Your task to perform on an android device: create a new album in the google photos Image 0: 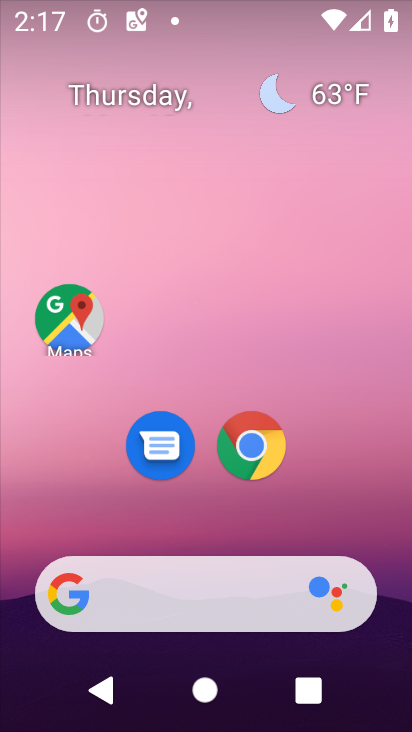
Step 0: drag from (245, 584) to (241, 40)
Your task to perform on an android device: create a new album in the google photos Image 1: 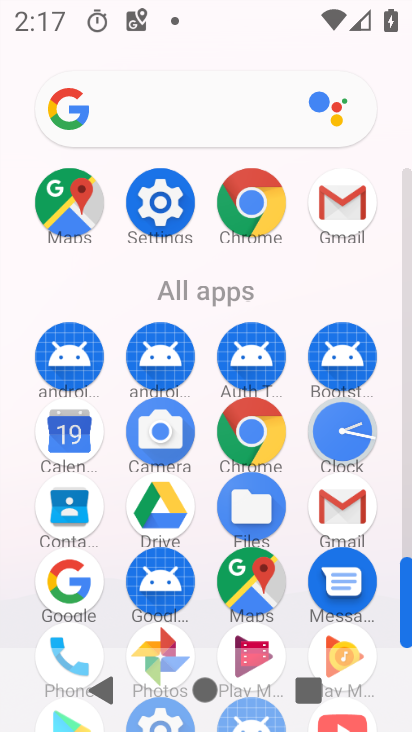
Step 1: click (165, 634)
Your task to perform on an android device: create a new album in the google photos Image 2: 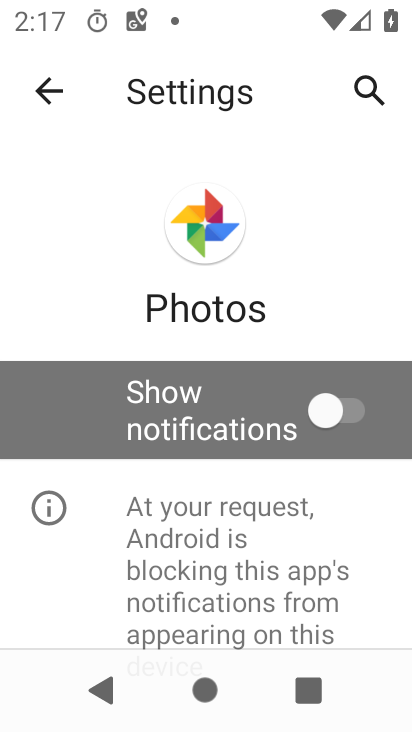
Step 2: click (50, 99)
Your task to perform on an android device: create a new album in the google photos Image 3: 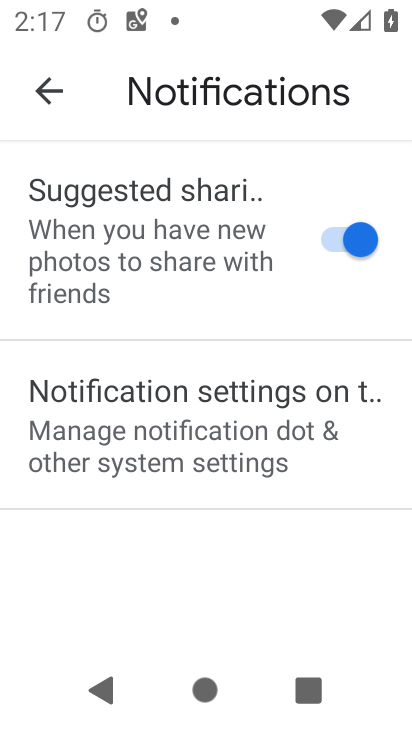
Step 3: click (50, 99)
Your task to perform on an android device: create a new album in the google photos Image 4: 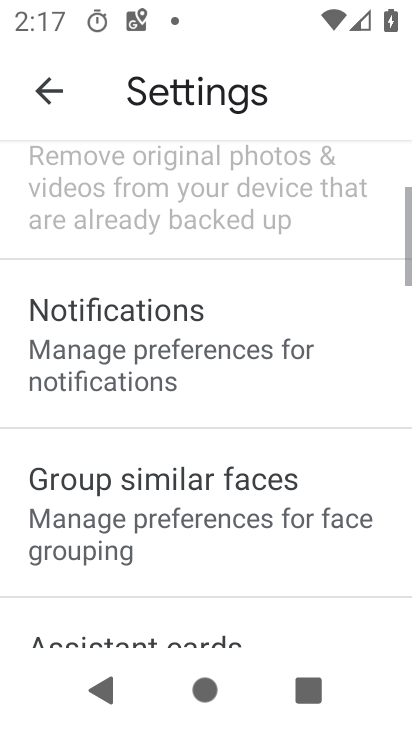
Step 4: click (50, 99)
Your task to perform on an android device: create a new album in the google photos Image 5: 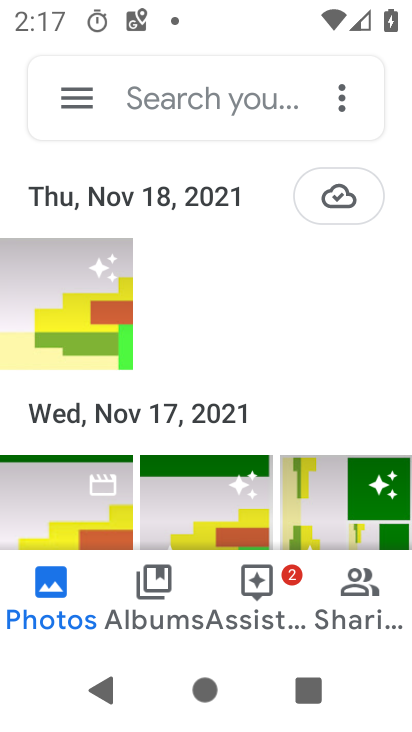
Step 5: click (166, 586)
Your task to perform on an android device: create a new album in the google photos Image 6: 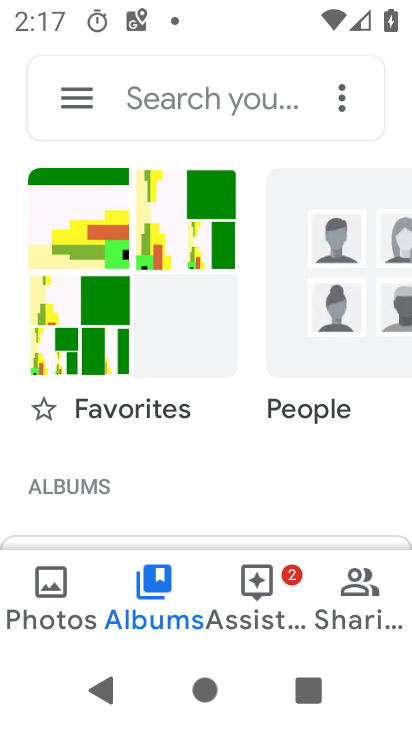
Step 6: drag from (190, 449) to (232, 102)
Your task to perform on an android device: create a new album in the google photos Image 7: 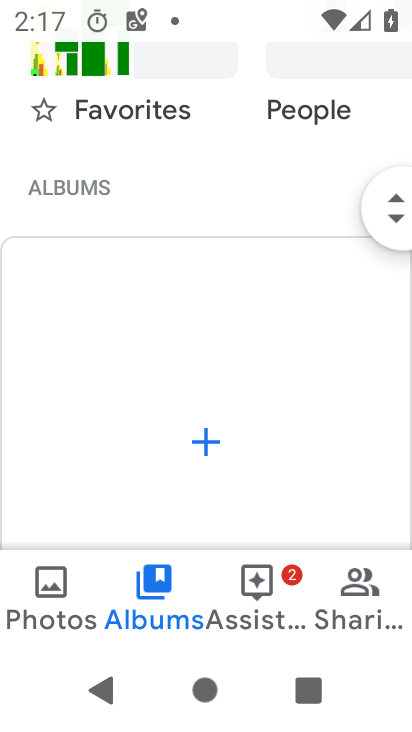
Step 7: click (186, 455)
Your task to perform on an android device: create a new album in the google photos Image 8: 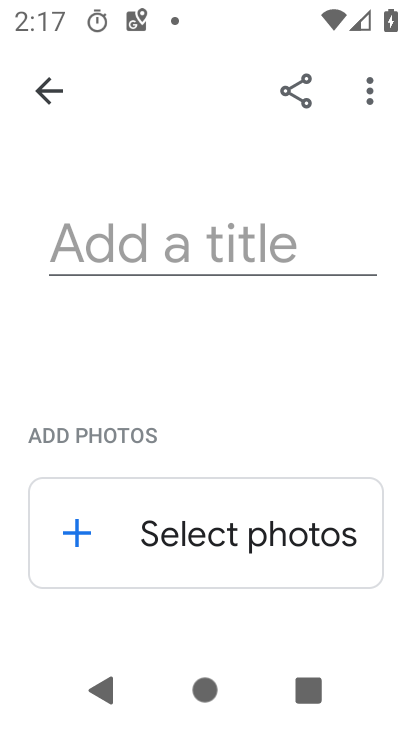
Step 8: click (205, 250)
Your task to perform on an android device: create a new album in the google photos Image 9: 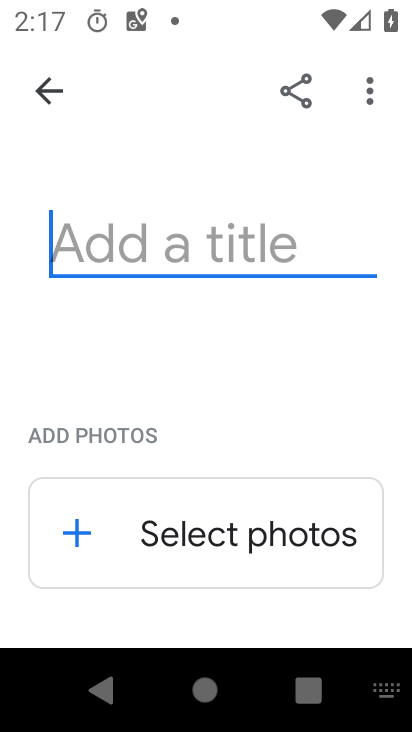
Step 9: type "ffvbxc"
Your task to perform on an android device: create a new album in the google photos Image 10: 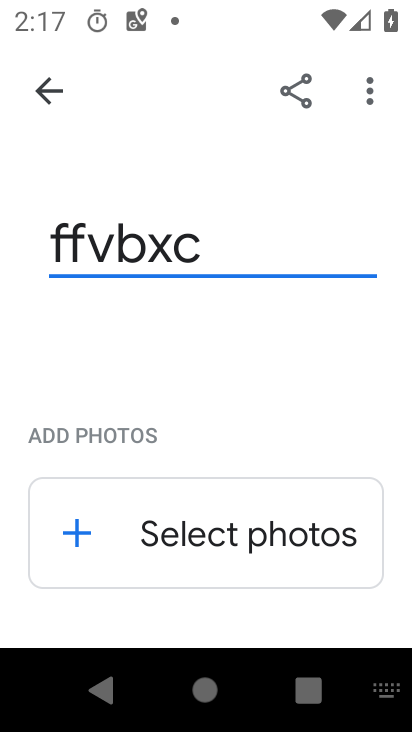
Step 10: click (213, 537)
Your task to perform on an android device: create a new album in the google photos Image 11: 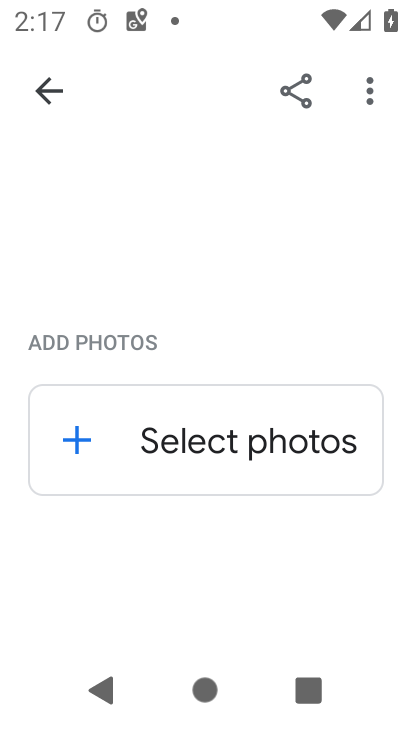
Step 11: click (140, 449)
Your task to perform on an android device: create a new album in the google photos Image 12: 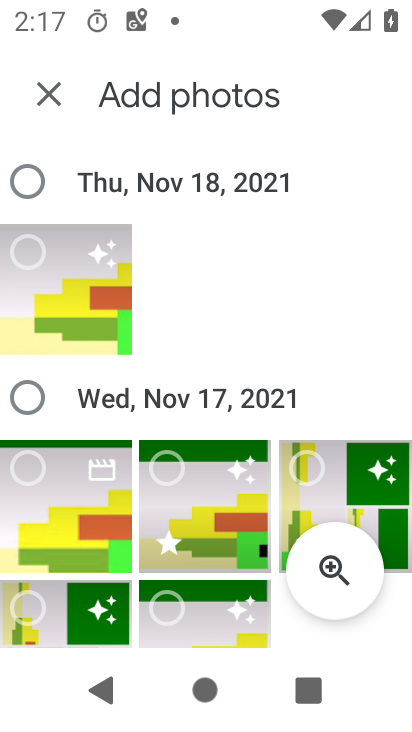
Step 12: click (28, 178)
Your task to perform on an android device: create a new album in the google photos Image 13: 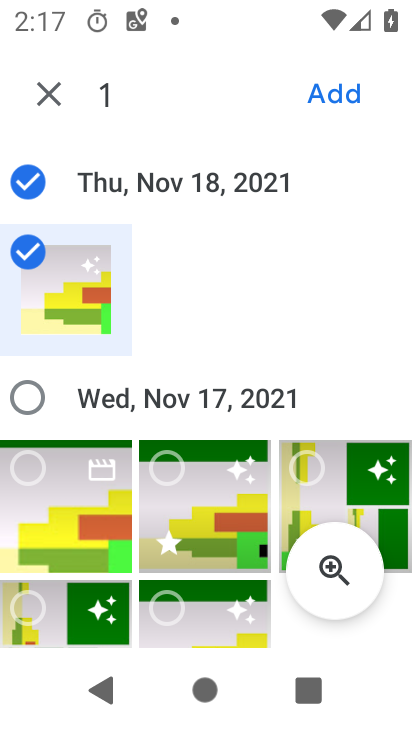
Step 13: click (31, 401)
Your task to perform on an android device: create a new album in the google photos Image 14: 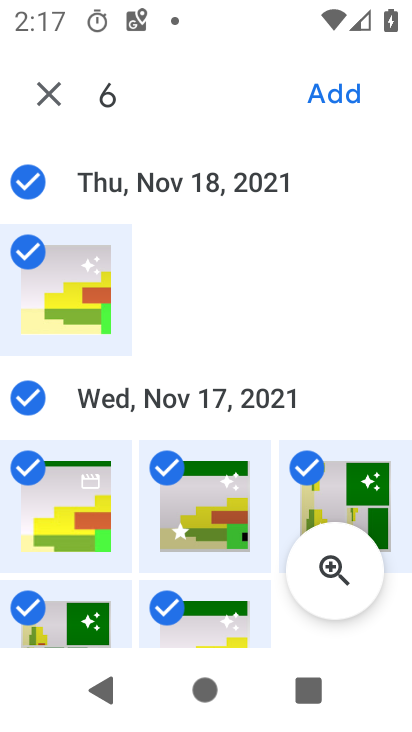
Step 14: click (338, 103)
Your task to perform on an android device: create a new album in the google photos Image 15: 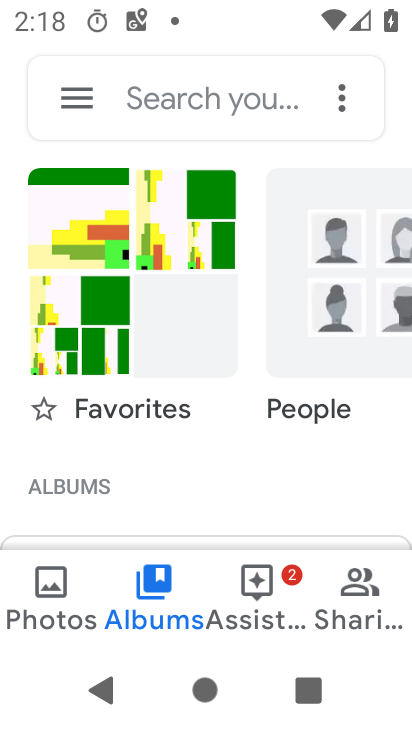
Step 15: task complete